Your task to perform on an android device: change keyboard looks Image 0: 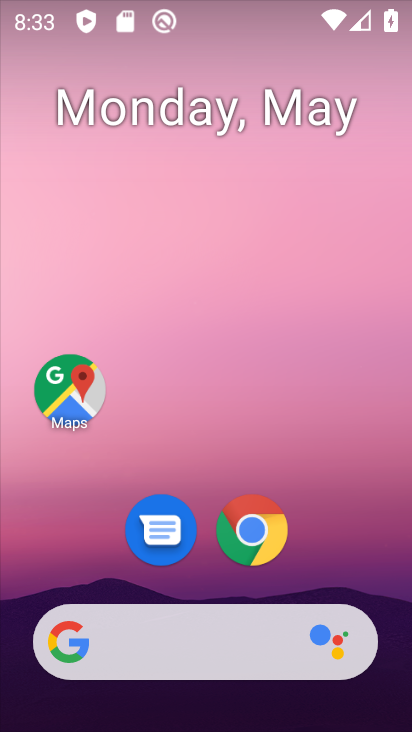
Step 0: drag from (134, 633) to (238, 277)
Your task to perform on an android device: change keyboard looks Image 1: 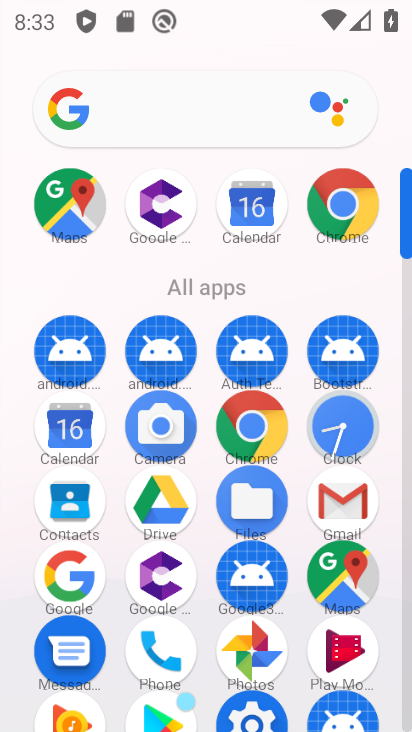
Step 1: drag from (184, 618) to (296, 243)
Your task to perform on an android device: change keyboard looks Image 2: 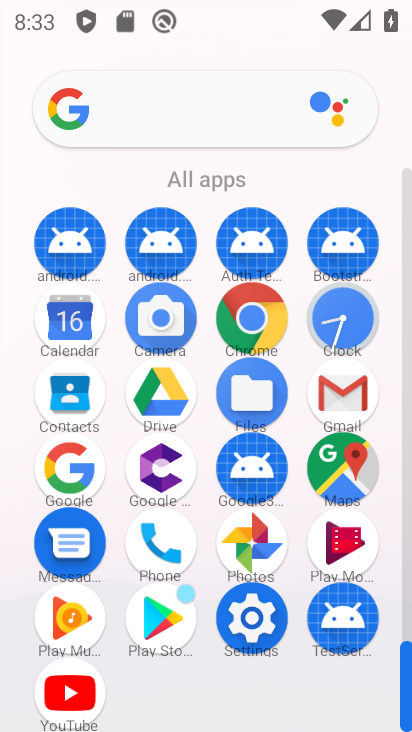
Step 2: click (255, 625)
Your task to perform on an android device: change keyboard looks Image 3: 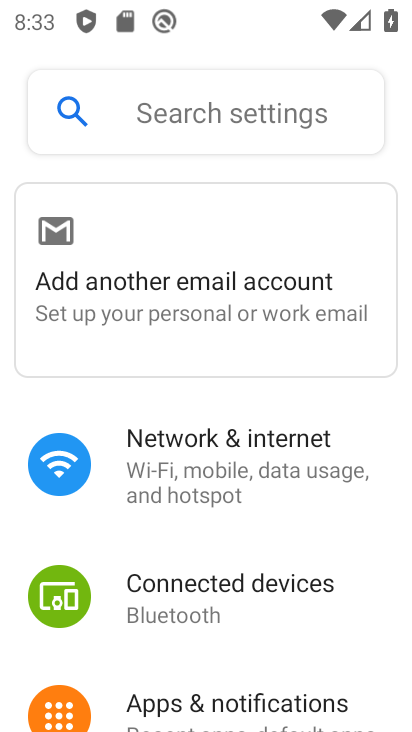
Step 3: drag from (195, 652) to (313, 109)
Your task to perform on an android device: change keyboard looks Image 4: 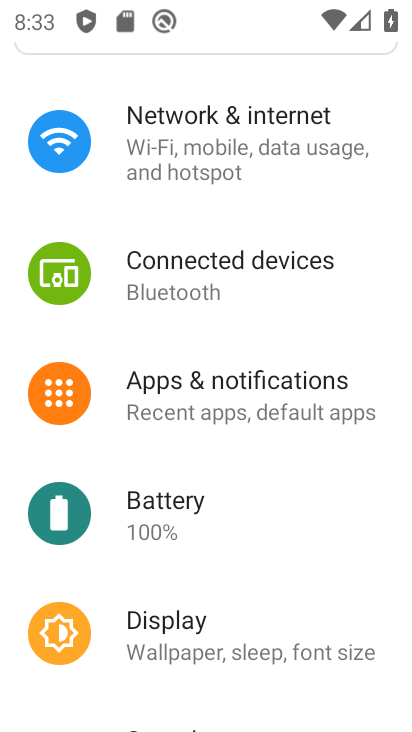
Step 4: drag from (177, 624) to (288, 237)
Your task to perform on an android device: change keyboard looks Image 5: 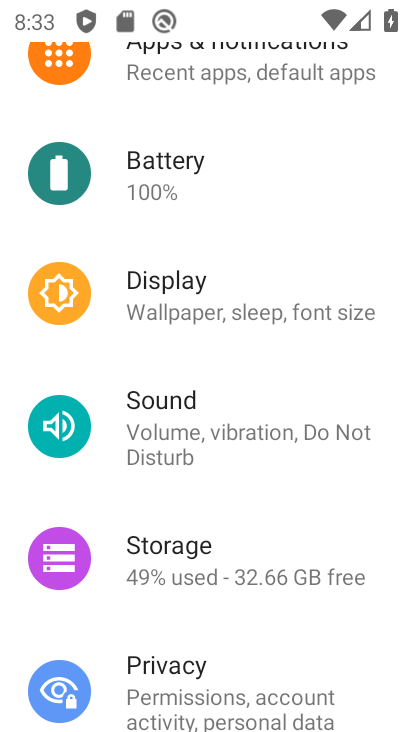
Step 5: drag from (192, 639) to (278, 215)
Your task to perform on an android device: change keyboard looks Image 6: 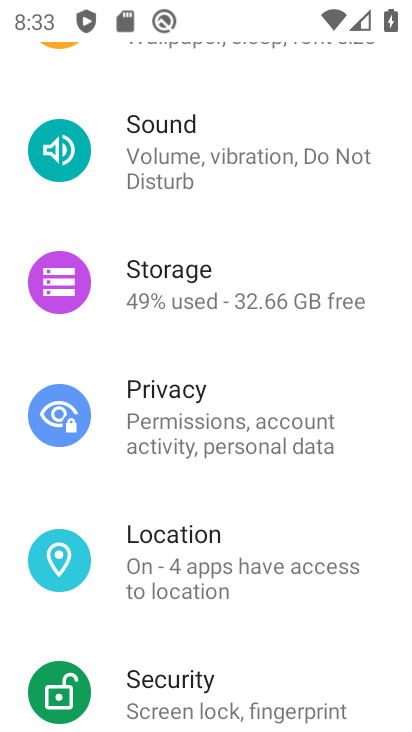
Step 6: drag from (194, 620) to (260, 175)
Your task to perform on an android device: change keyboard looks Image 7: 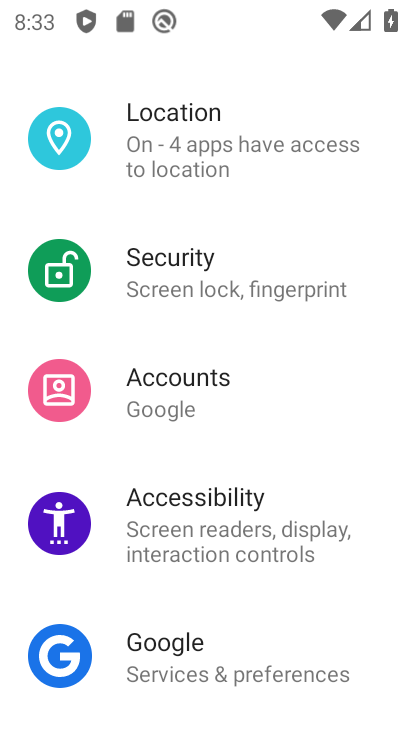
Step 7: drag from (188, 623) to (289, 200)
Your task to perform on an android device: change keyboard looks Image 8: 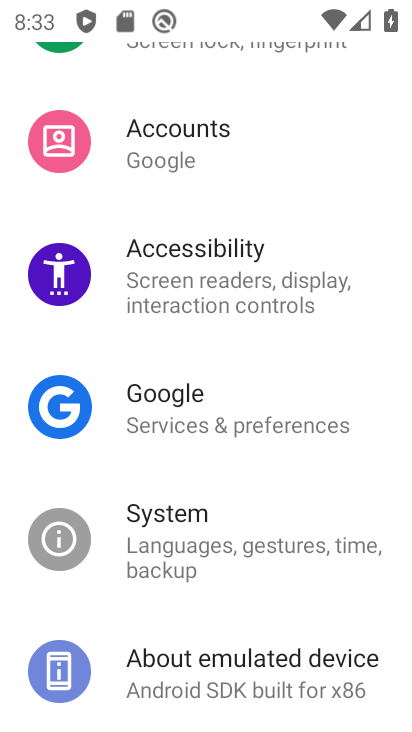
Step 8: click (185, 543)
Your task to perform on an android device: change keyboard looks Image 9: 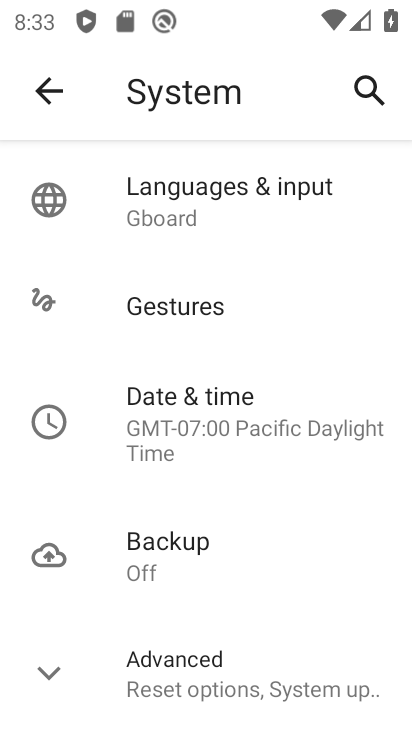
Step 9: click (189, 213)
Your task to perform on an android device: change keyboard looks Image 10: 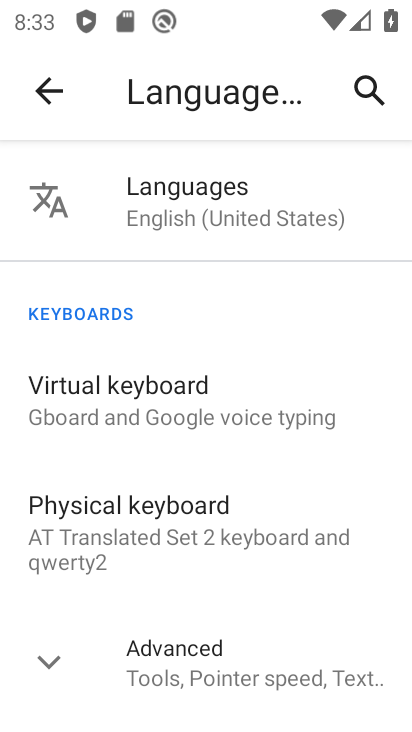
Step 10: click (176, 388)
Your task to perform on an android device: change keyboard looks Image 11: 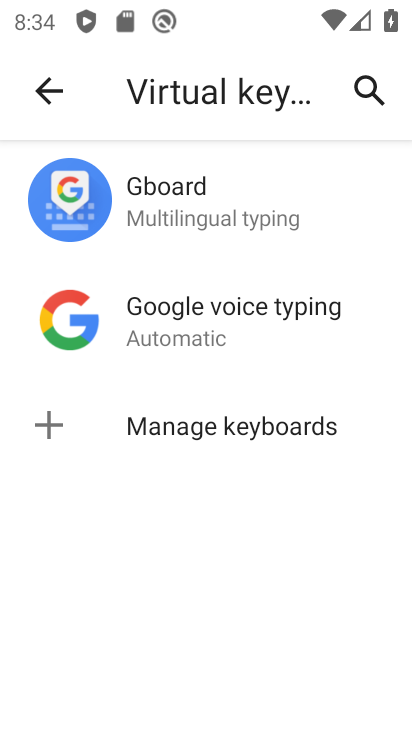
Step 11: click (249, 235)
Your task to perform on an android device: change keyboard looks Image 12: 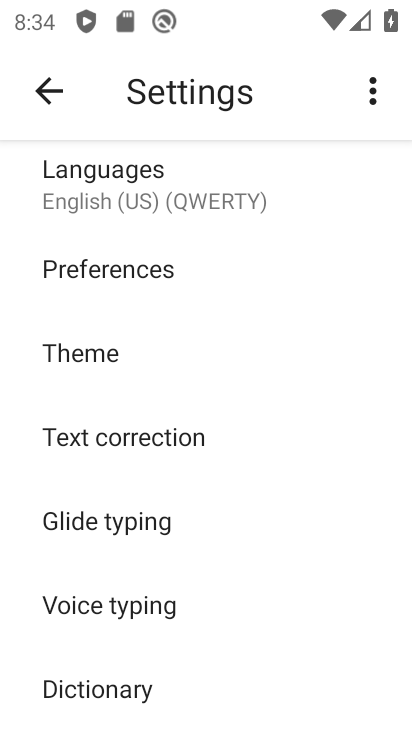
Step 12: click (270, 111)
Your task to perform on an android device: change keyboard looks Image 13: 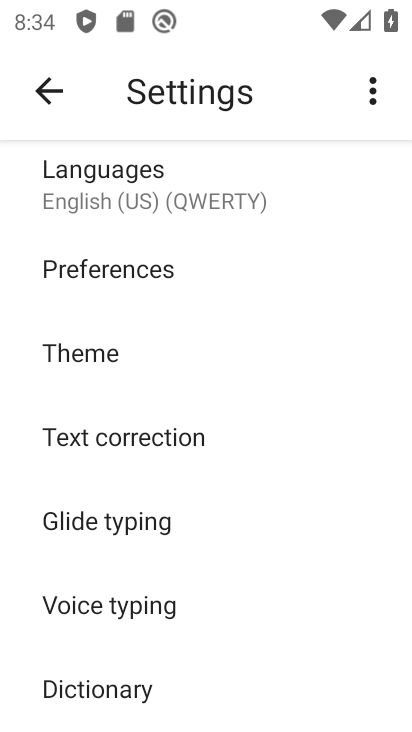
Step 13: click (101, 359)
Your task to perform on an android device: change keyboard looks Image 14: 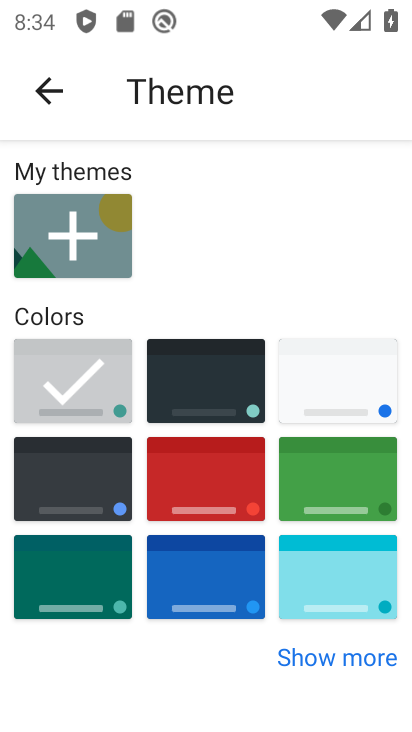
Step 14: click (196, 441)
Your task to perform on an android device: change keyboard looks Image 15: 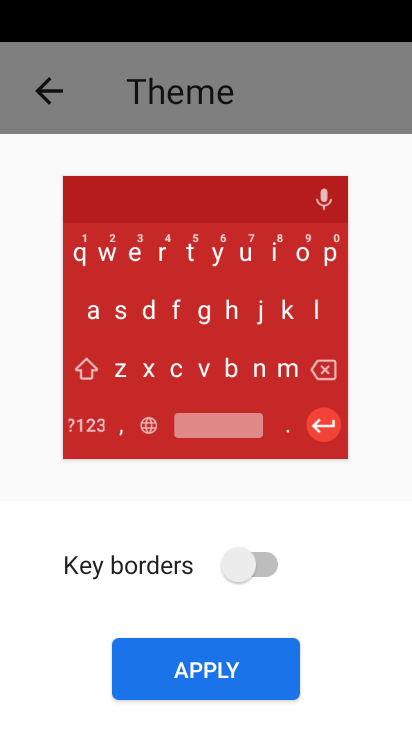
Step 15: click (170, 669)
Your task to perform on an android device: change keyboard looks Image 16: 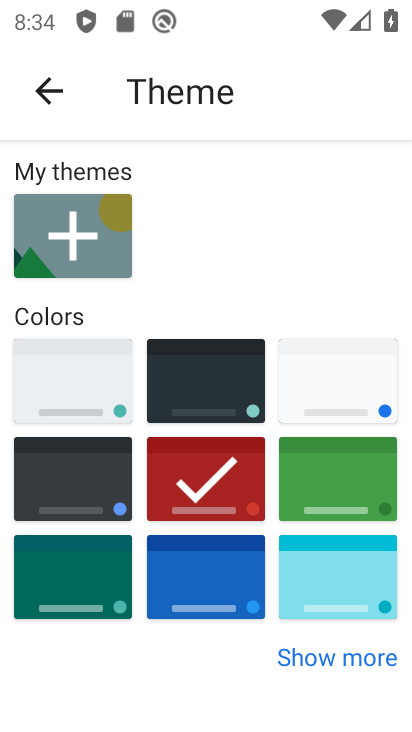
Step 16: task complete